Your task to perform on an android device: Open CNN.com Image 0: 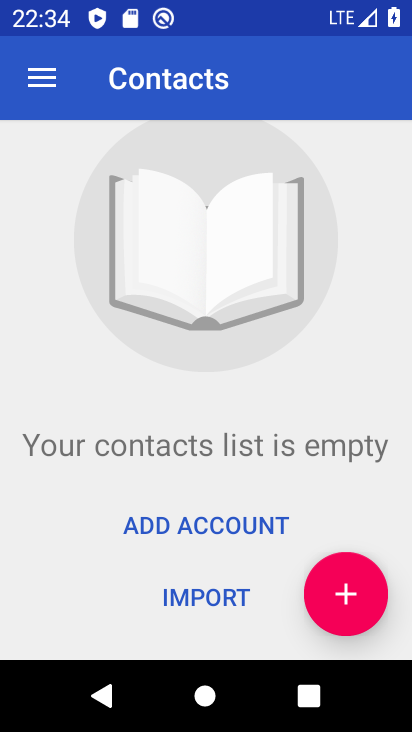
Step 0: press home button
Your task to perform on an android device: Open CNN.com Image 1: 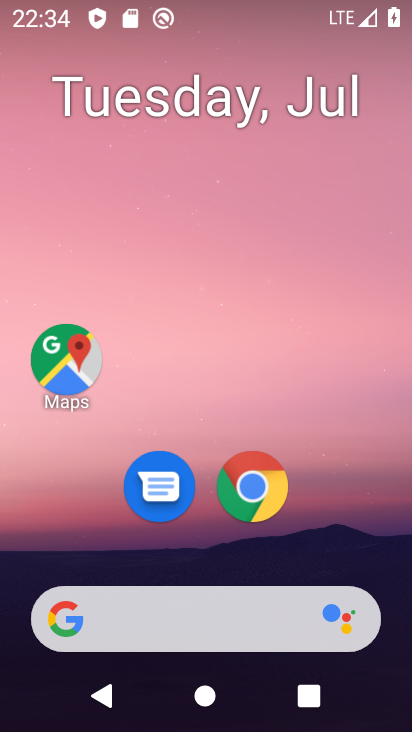
Step 1: drag from (373, 527) to (357, 193)
Your task to perform on an android device: Open CNN.com Image 2: 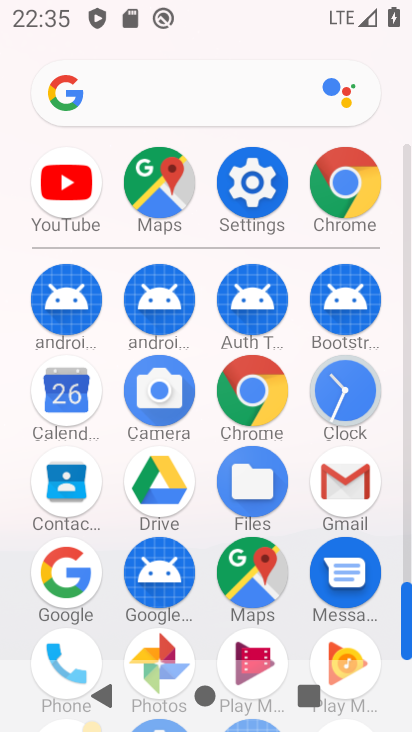
Step 2: click (254, 390)
Your task to perform on an android device: Open CNN.com Image 3: 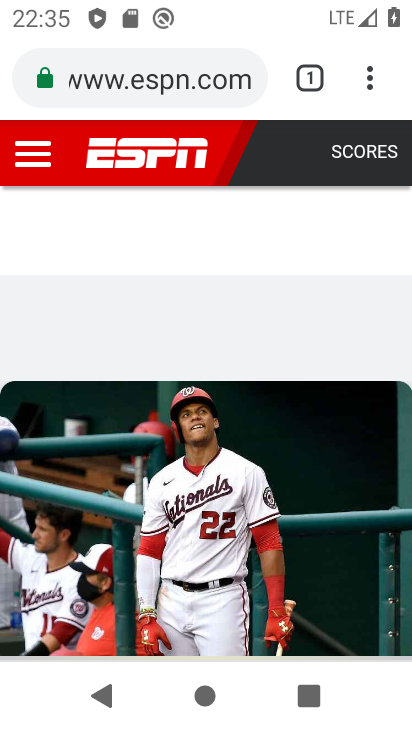
Step 3: click (199, 73)
Your task to perform on an android device: Open CNN.com Image 4: 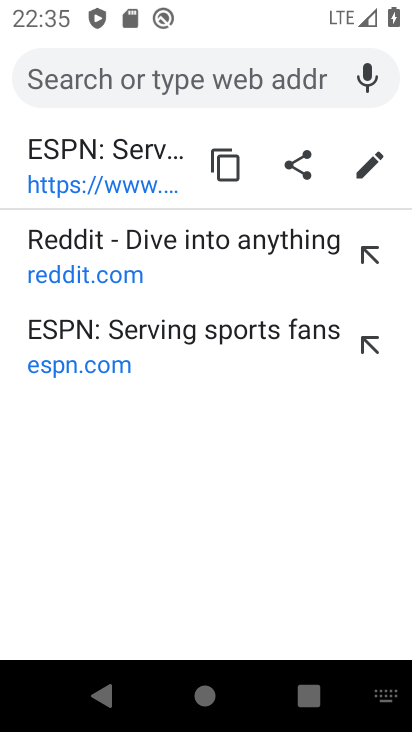
Step 4: type "cnn.com"
Your task to perform on an android device: Open CNN.com Image 5: 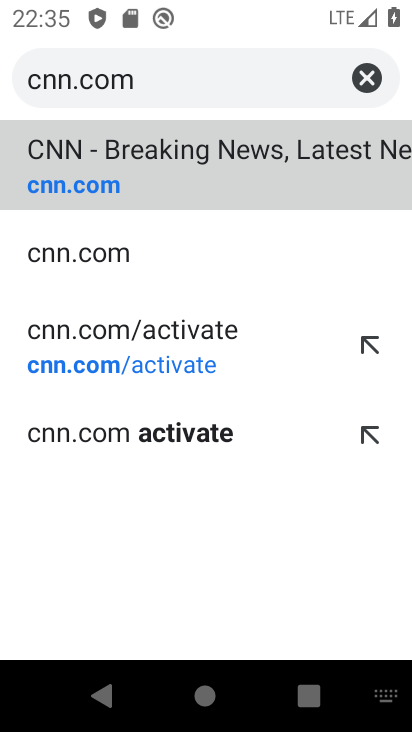
Step 5: click (235, 155)
Your task to perform on an android device: Open CNN.com Image 6: 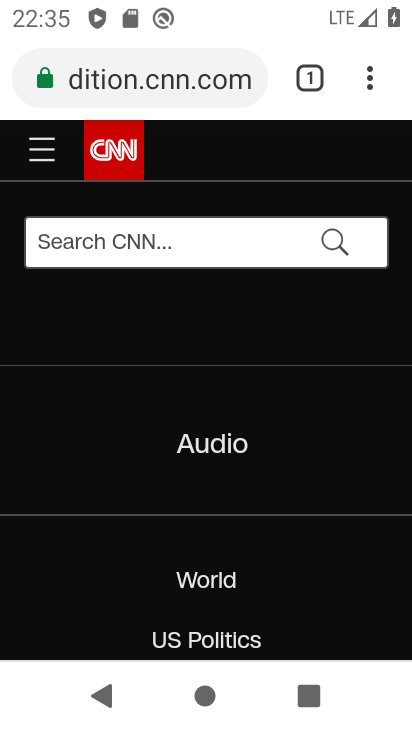
Step 6: task complete